Your task to perform on an android device: turn off location Image 0: 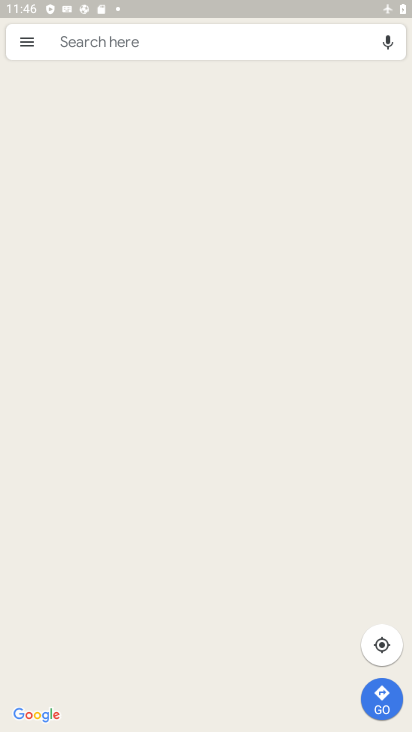
Step 0: press home button
Your task to perform on an android device: turn off location Image 1: 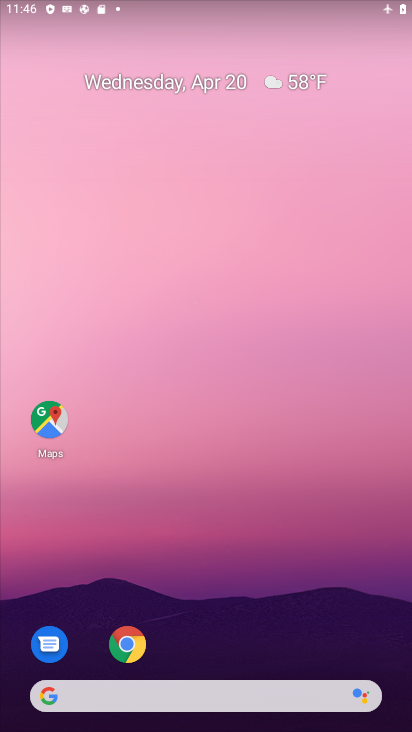
Step 1: drag from (198, 509) to (215, 184)
Your task to perform on an android device: turn off location Image 2: 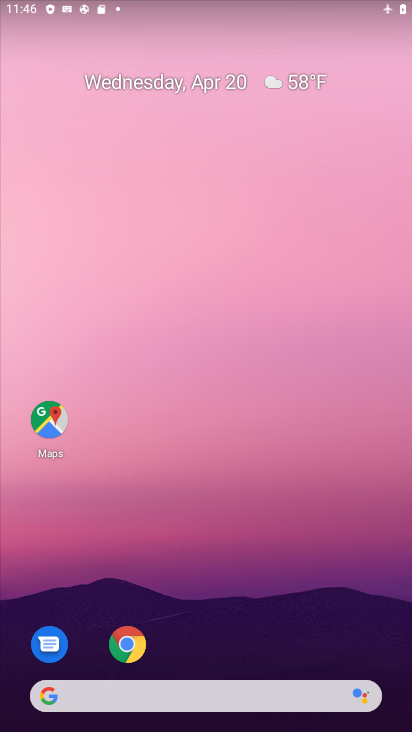
Step 2: drag from (209, 606) to (226, 0)
Your task to perform on an android device: turn off location Image 3: 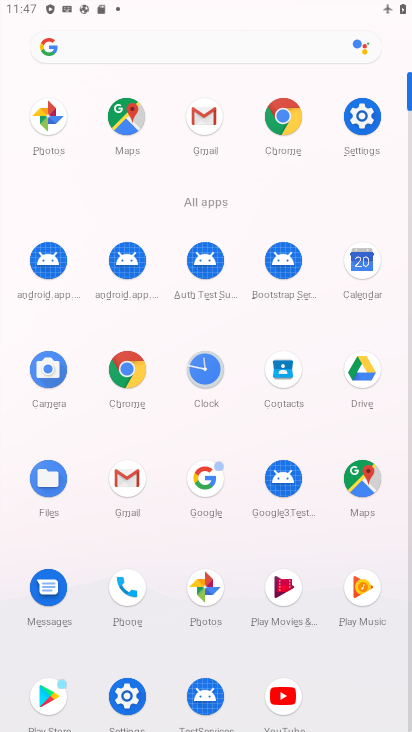
Step 3: click (356, 127)
Your task to perform on an android device: turn off location Image 4: 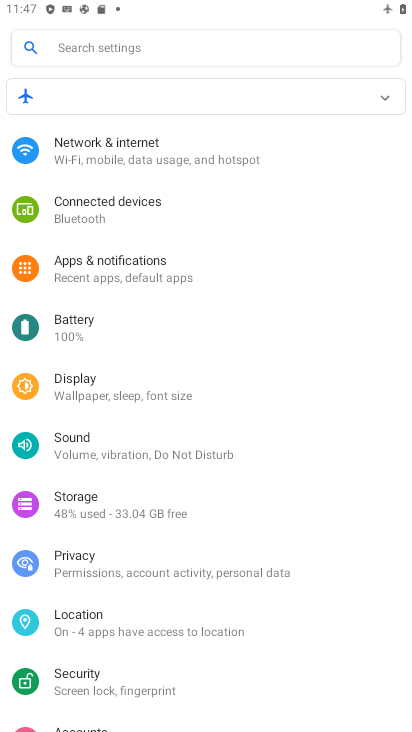
Step 4: click (158, 619)
Your task to perform on an android device: turn off location Image 5: 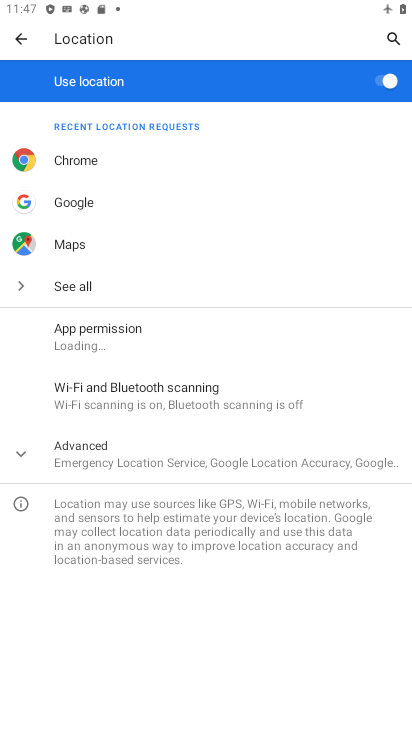
Step 5: click (382, 87)
Your task to perform on an android device: turn off location Image 6: 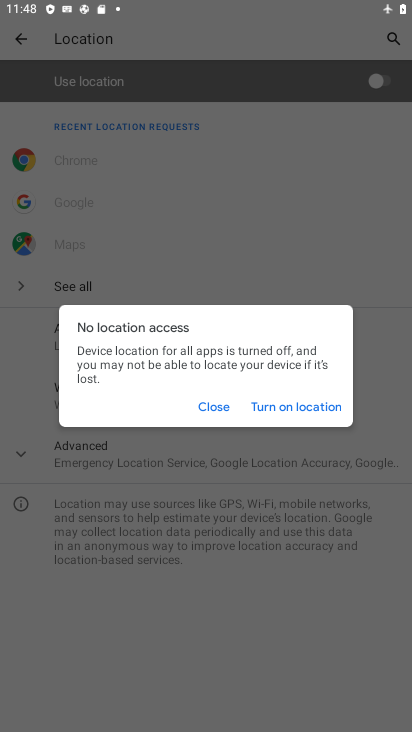
Step 6: press home button
Your task to perform on an android device: turn off location Image 7: 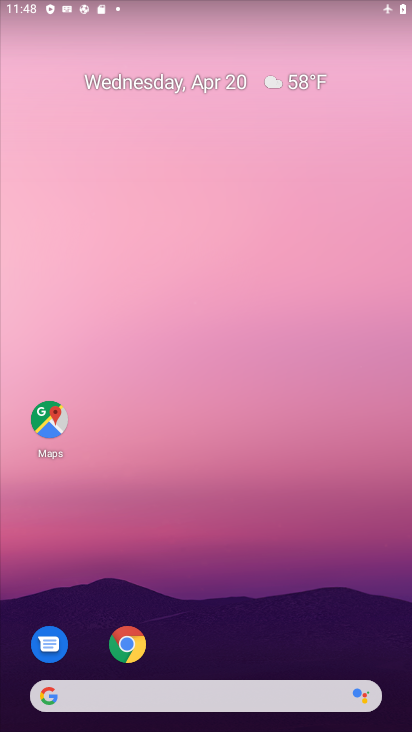
Step 7: drag from (241, 595) to (262, 117)
Your task to perform on an android device: turn off location Image 8: 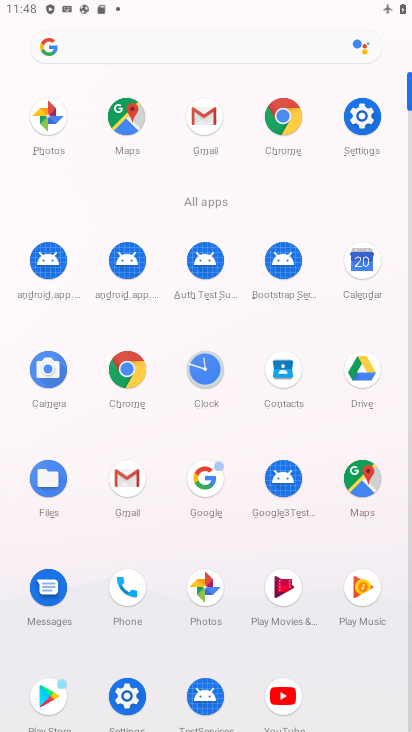
Step 8: click (364, 117)
Your task to perform on an android device: turn off location Image 9: 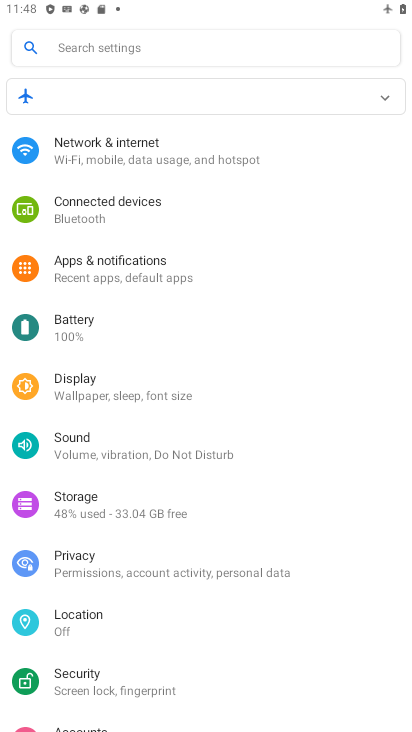
Step 9: click (81, 610)
Your task to perform on an android device: turn off location Image 10: 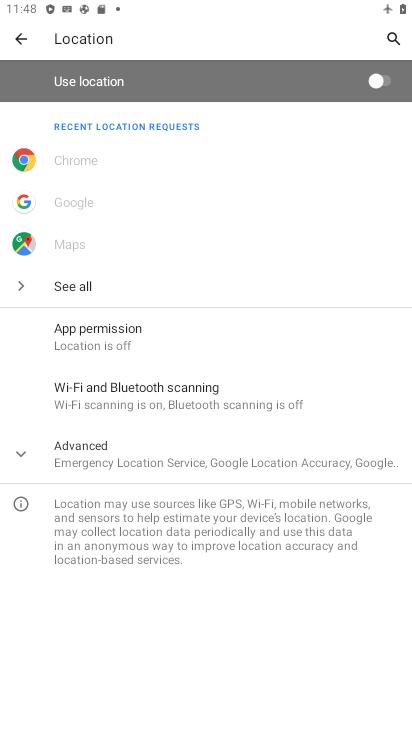
Step 10: task complete